Your task to perform on an android device: toggle improve location accuracy Image 0: 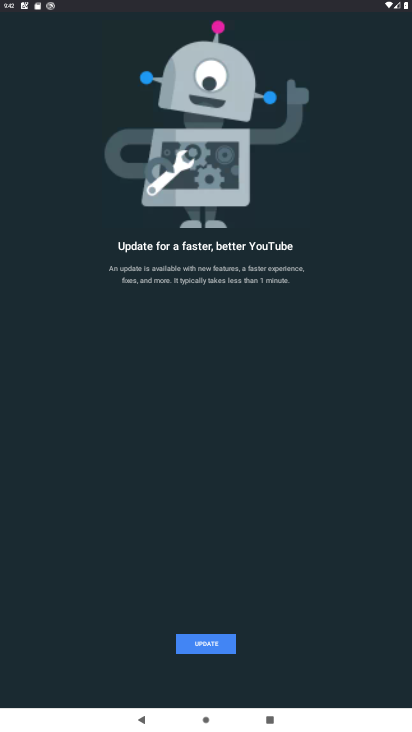
Step 0: press home button
Your task to perform on an android device: toggle improve location accuracy Image 1: 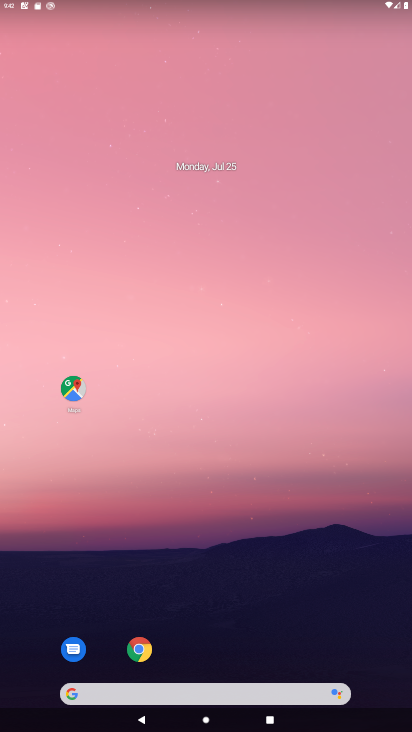
Step 1: drag from (218, 647) to (134, 0)
Your task to perform on an android device: toggle improve location accuracy Image 2: 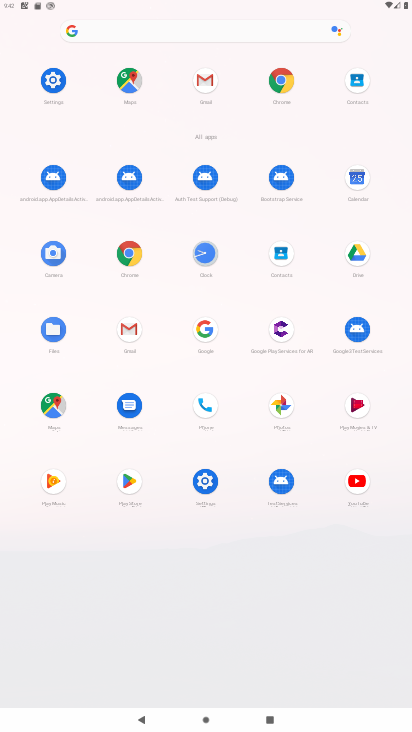
Step 2: click (203, 485)
Your task to perform on an android device: toggle improve location accuracy Image 3: 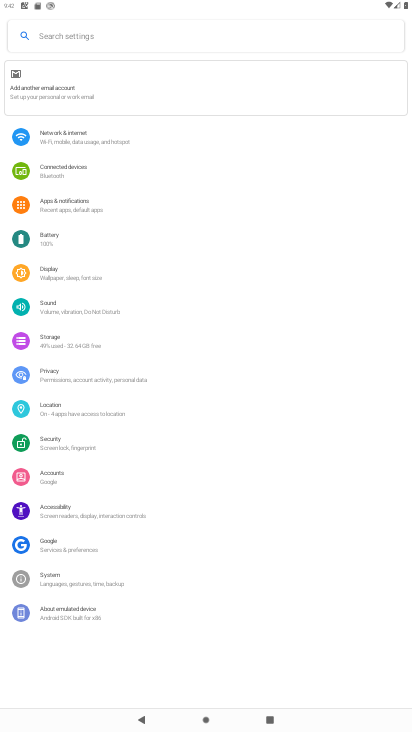
Step 3: click (70, 409)
Your task to perform on an android device: toggle improve location accuracy Image 4: 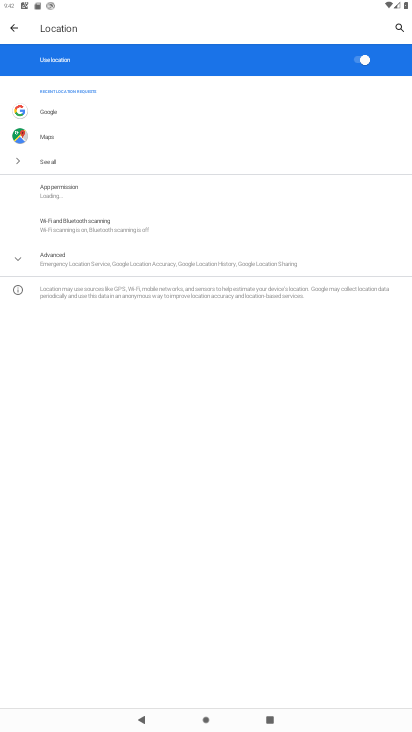
Step 4: click (84, 254)
Your task to perform on an android device: toggle improve location accuracy Image 5: 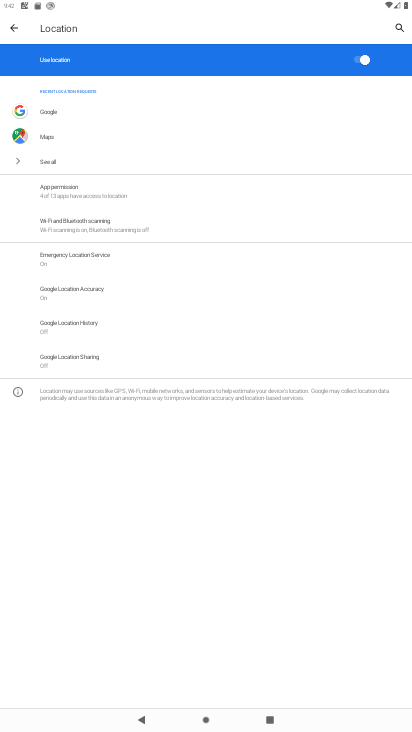
Step 5: click (88, 283)
Your task to perform on an android device: toggle improve location accuracy Image 6: 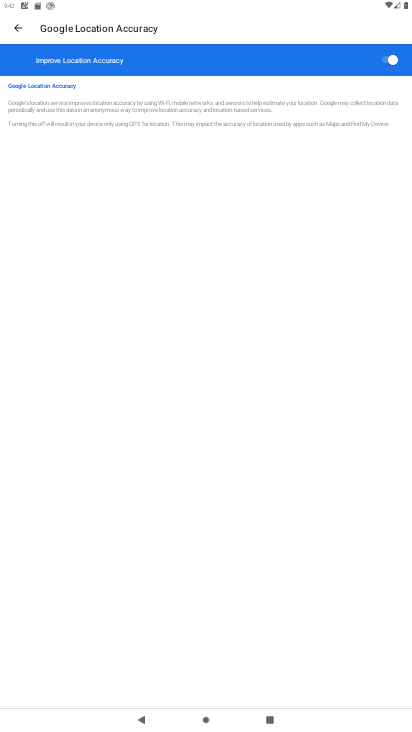
Step 6: click (363, 61)
Your task to perform on an android device: toggle improve location accuracy Image 7: 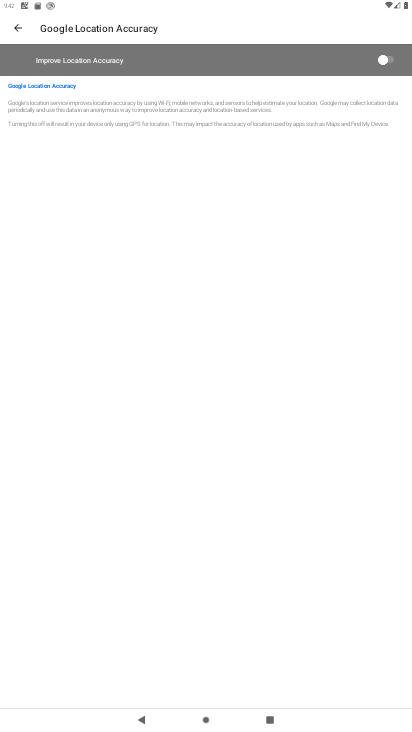
Step 7: task complete